Your task to perform on an android device: Open accessibility settings Image 0: 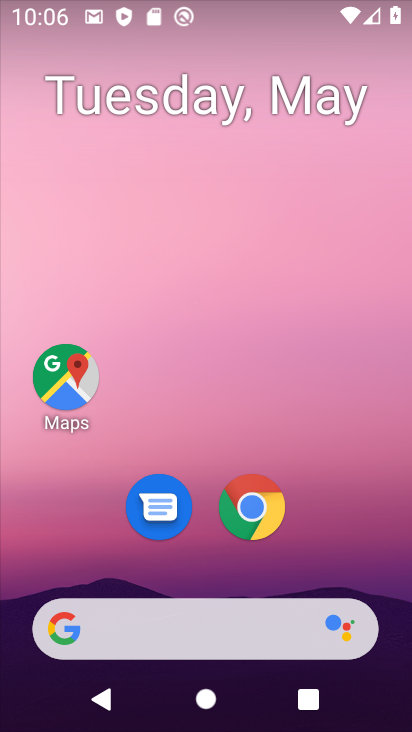
Step 0: click (204, 17)
Your task to perform on an android device: Open accessibility settings Image 1: 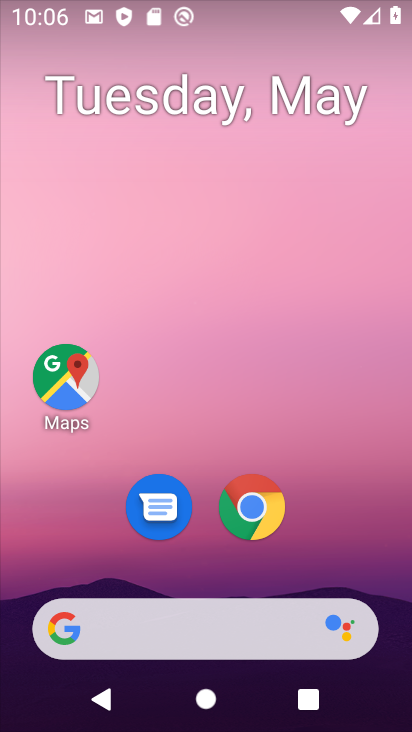
Step 1: drag from (204, 391) to (160, 47)
Your task to perform on an android device: Open accessibility settings Image 2: 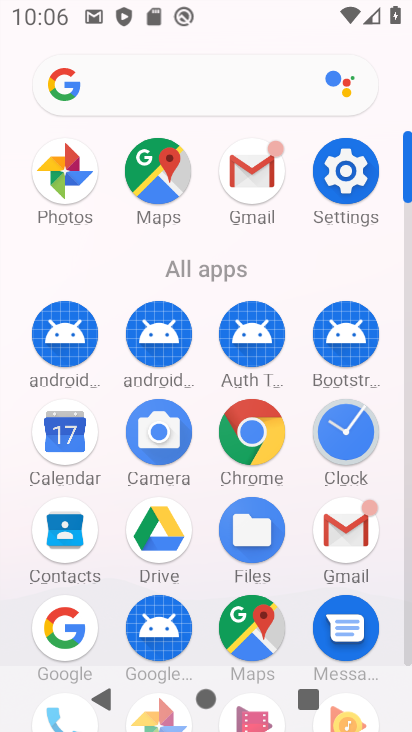
Step 2: click (336, 174)
Your task to perform on an android device: Open accessibility settings Image 3: 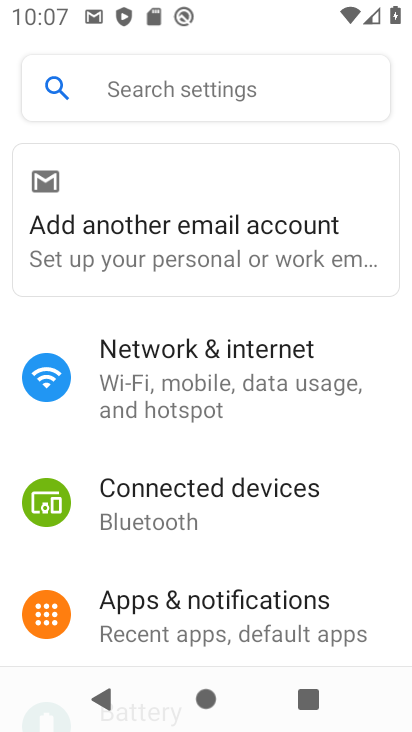
Step 3: drag from (272, 561) to (207, 231)
Your task to perform on an android device: Open accessibility settings Image 4: 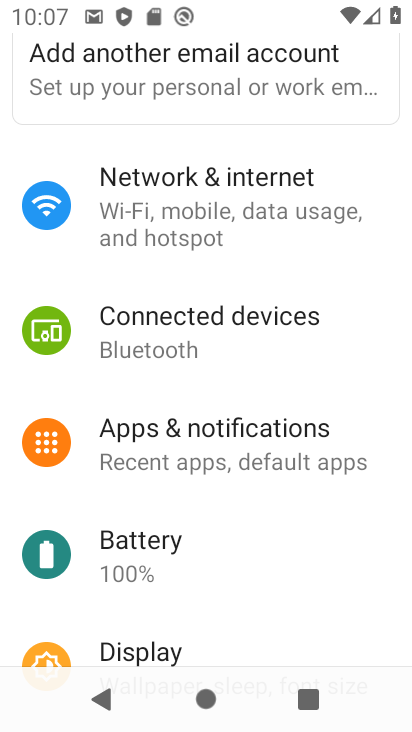
Step 4: drag from (257, 540) to (212, 170)
Your task to perform on an android device: Open accessibility settings Image 5: 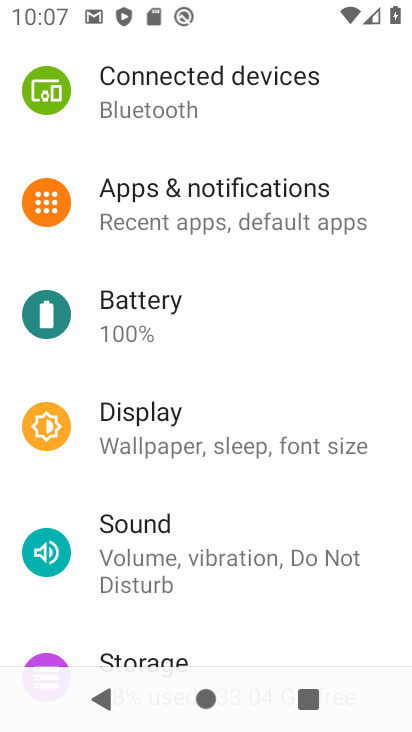
Step 5: drag from (288, 491) to (237, 183)
Your task to perform on an android device: Open accessibility settings Image 6: 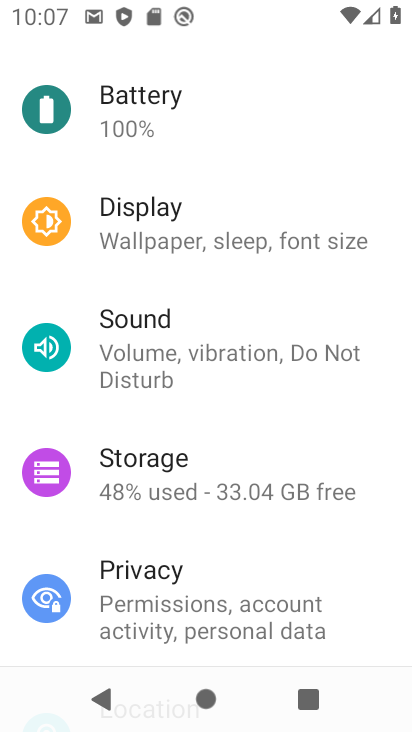
Step 6: drag from (221, 531) to (151, 144)
Your task to perform on an android device: Open accessibility settings Image 7: 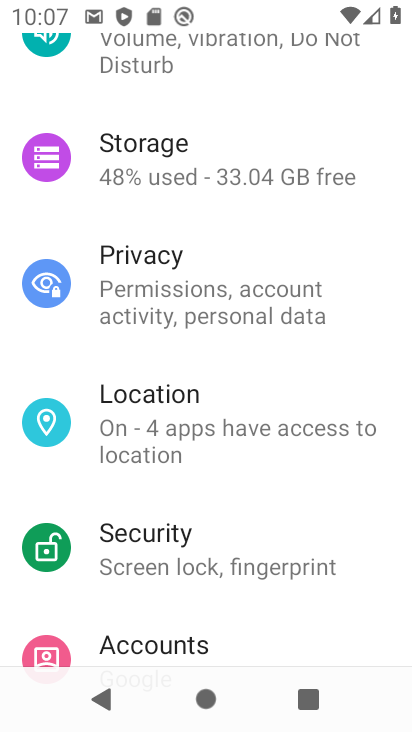
Step 7: drag from (232, 511) to (198, 185)
Your task to perform on an android device: Open accessibility settings Image 8: 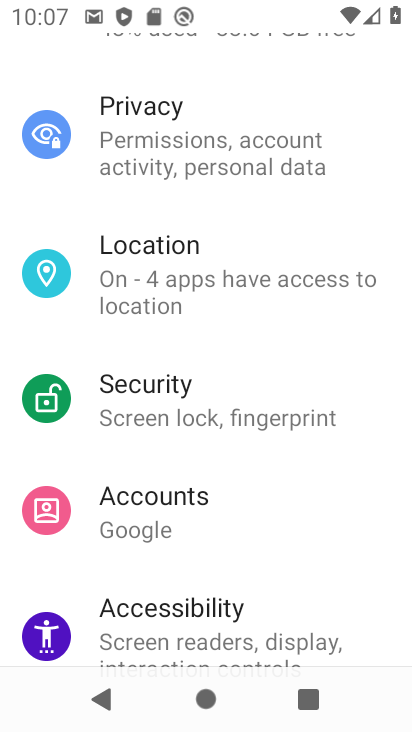
Step 8: click (168, 597)
Your task to perform on an android device: Open accessibility settings Image 9: 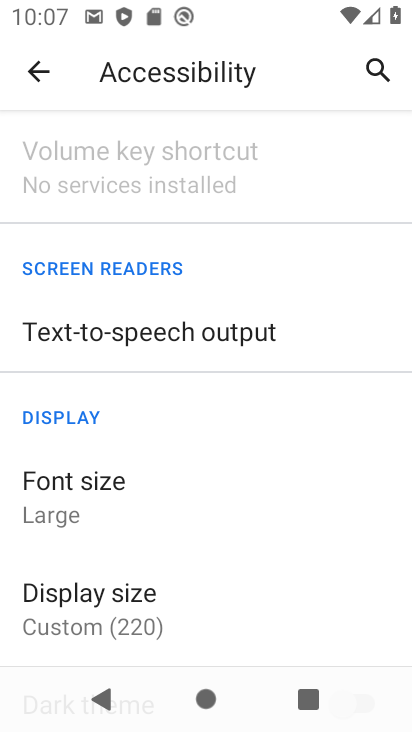
Step 9: task complete